Your task to perform on an android device: Go to wifi settings Image 0: 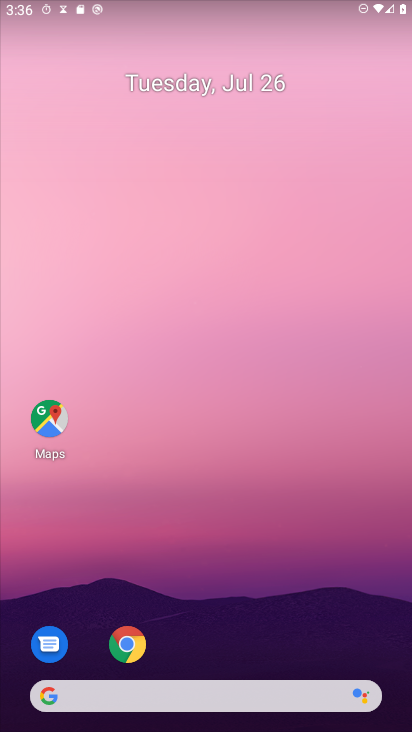
Step 0: press home button
Your task to perform on an android device: Go to wifi settings Image 1: 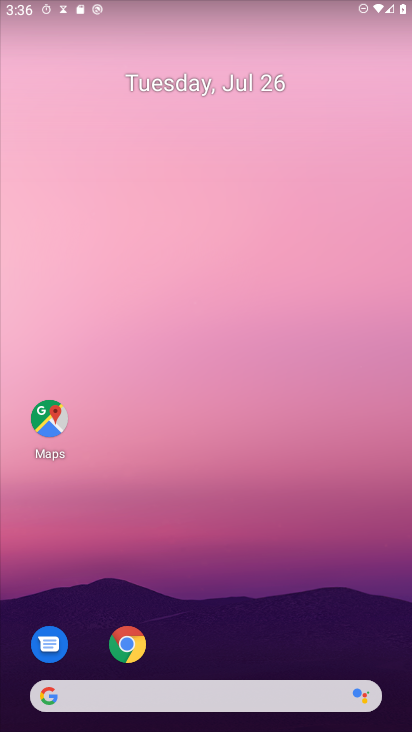
Step 1: drag from (284, 619) to (298, 145)
Your task to perform on an android device: Go to wifi settings Image 2: 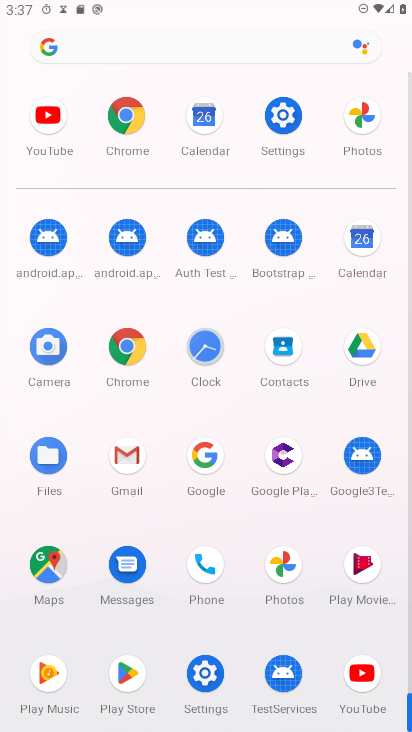
Step 2: click (279, 110)
Your task to perform on an android device: Go to wifi settings Image 3: 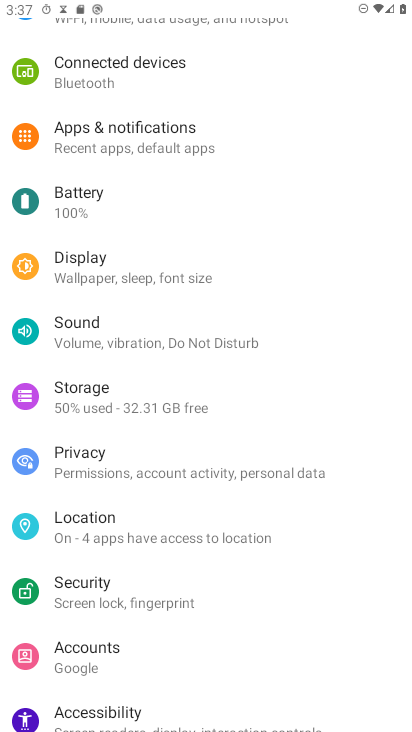
Step 3: drag from (250, 97) to (283, 456)
Your task to perform on an android device: Go to wifi settings Image 4: 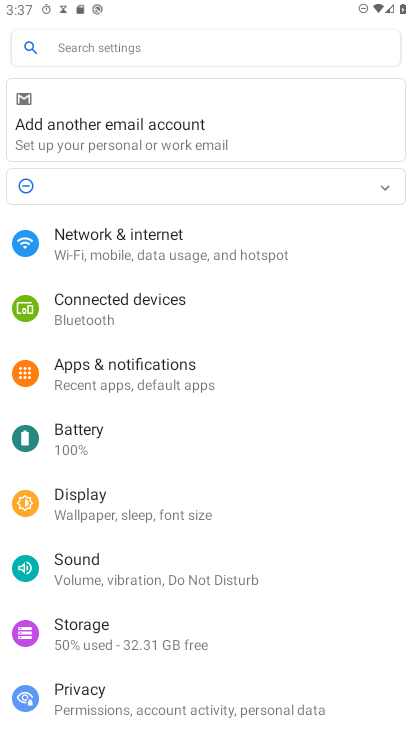
Step 4: click (91, 235)
Your task to perform on an android device: Go to wifi settings Image 5: 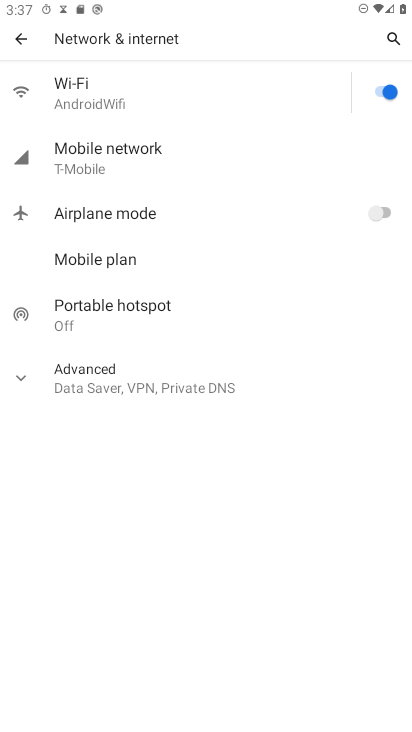
Step 5: click (211, 104)
Your task to perform on an android device: Go to wifi settings Image 6: 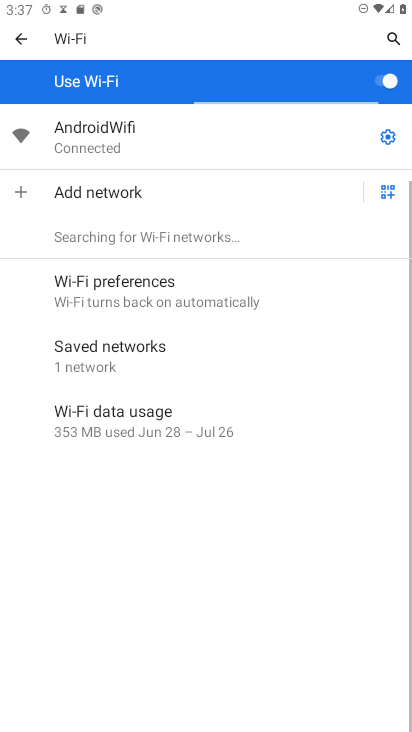
Step 6: task complete